Your task to perform on an android device: Show me recent news Image 0: 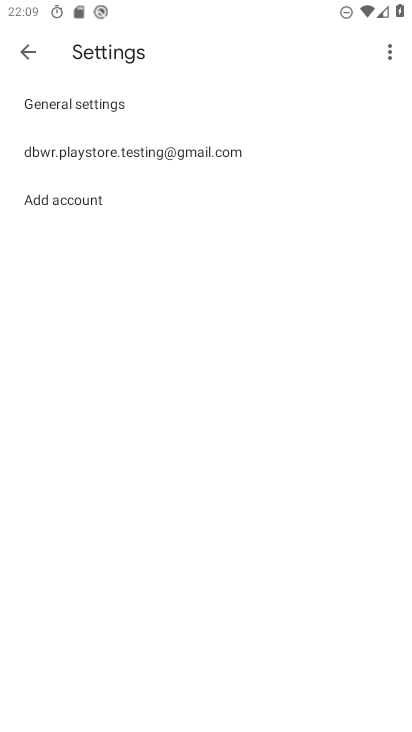
Step 0: press home button
Your task to perform on an android device: Show me recent news Image 1: 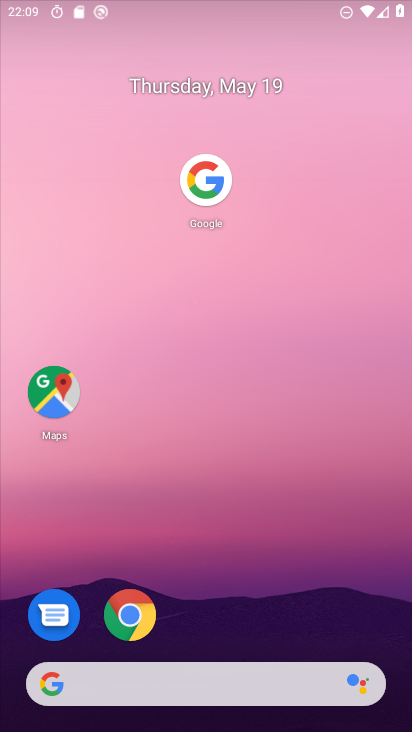
Step 1: drag from (221, 577) to (283, 39)
Your task to perform on an android device: Show me recent news Image 2: 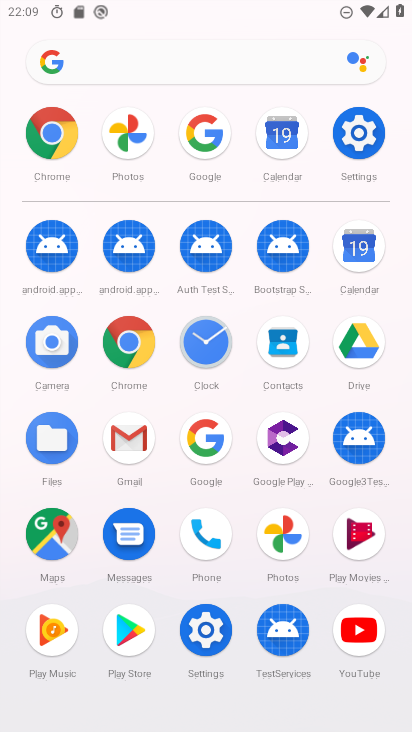
Step 2: click (204, 146)
Your task to perform on an android device: Show me recent news Image 3: 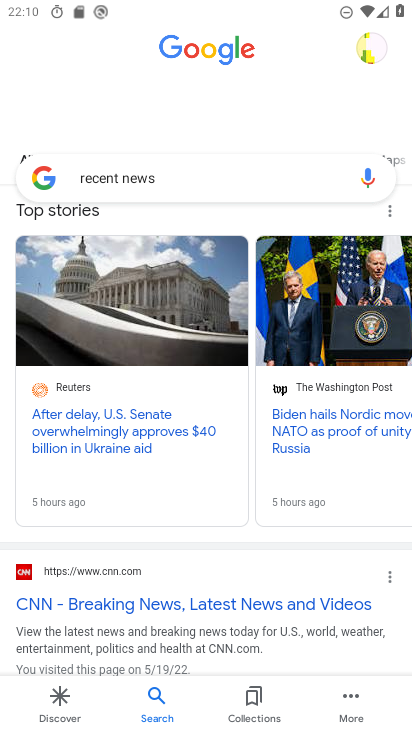
Step 3: task complete